Your task to perform on an android device: Open the calendar app, open the side menu, and click the "Day" option Image 0: 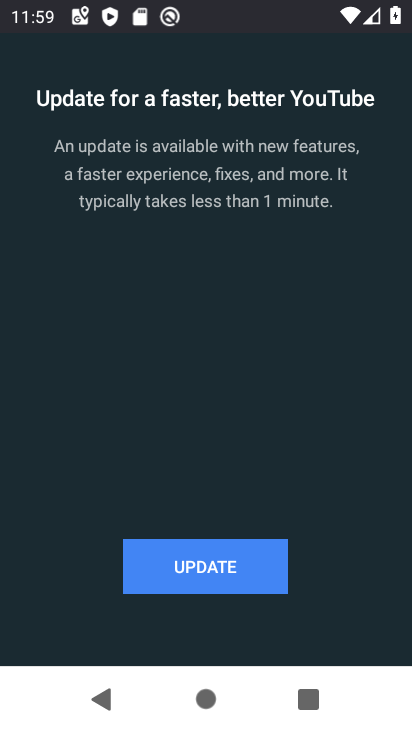
Step 0: press back button
Your task to perform on an android device: Open the calendar app, open the side menu, and click the "Day" option Image 1: 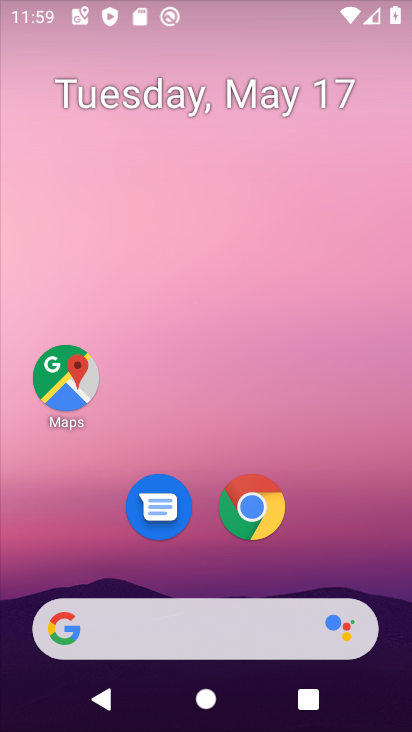
Step 1: drag from (284, 556) to (308, 236)
Your task to perform on an android device: Open the calendar app, open the side menu, and click the "Day" option Image 2: 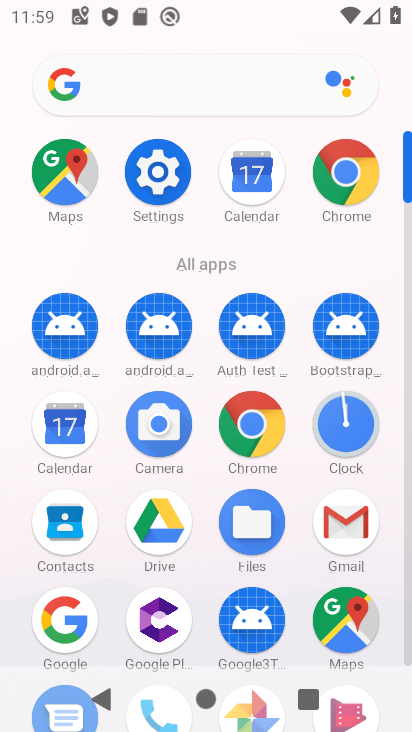
Step 2: click (52, 406)
Your task to perform on an android device: Open the calendar app, open the side menu, and click the "Day" option Image 3: 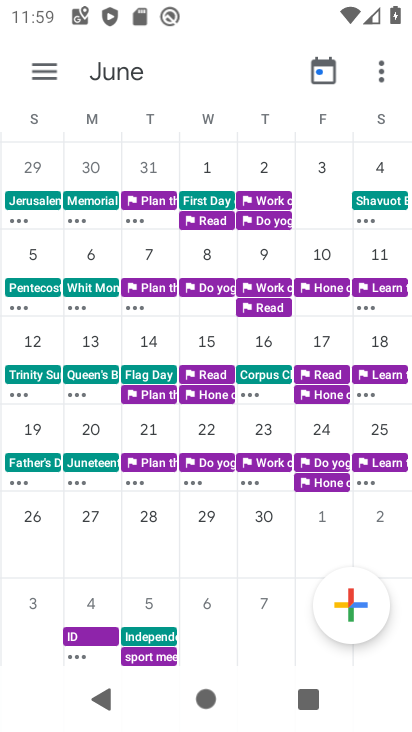
Step 3: click (50, 68)
Your task to perform on an android device: Open the calendar app, open the side menu, and click the "Day" option Image 4: 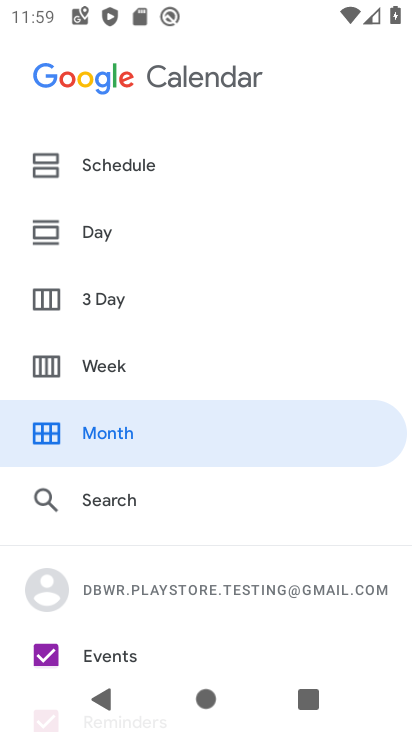
Step 4: click (96, 215)
Your task to perform on an android device: Open the calendar app, open the side menu, and click the "Day" option Image 5: 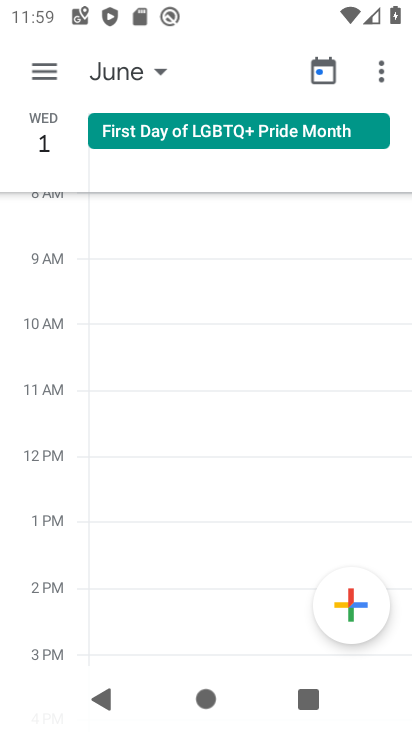
Step 5: task complete